Your task to perform on an android device: Go to ESPN.com Image 0: 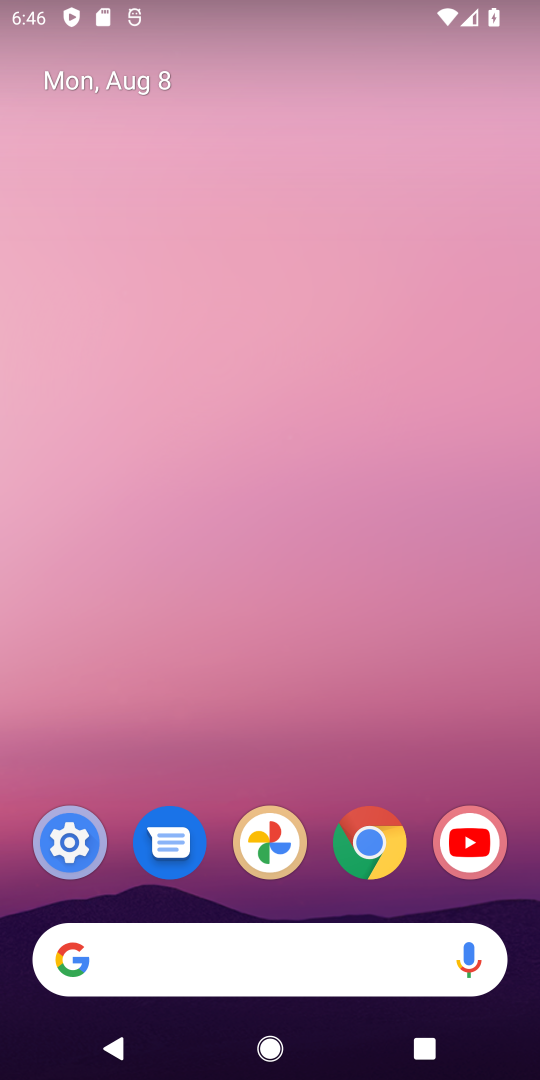
Step 0: click (388, 860)
Your task to perform on an android device: Go to ESPN.com Image 1: 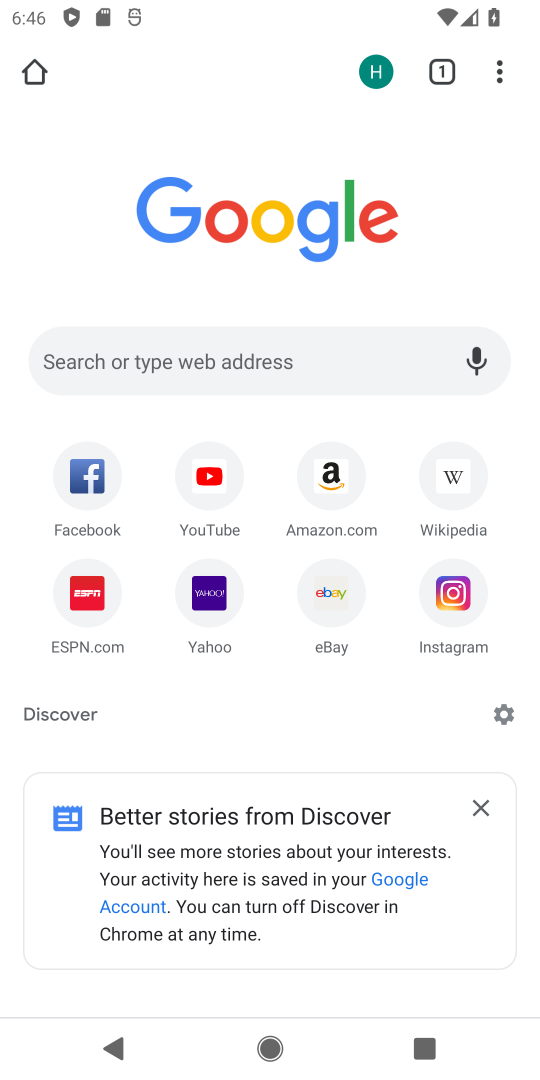
Step 1: task complete